Your task to perform on an android device: What's the weather going to be this weekend? Image 0: 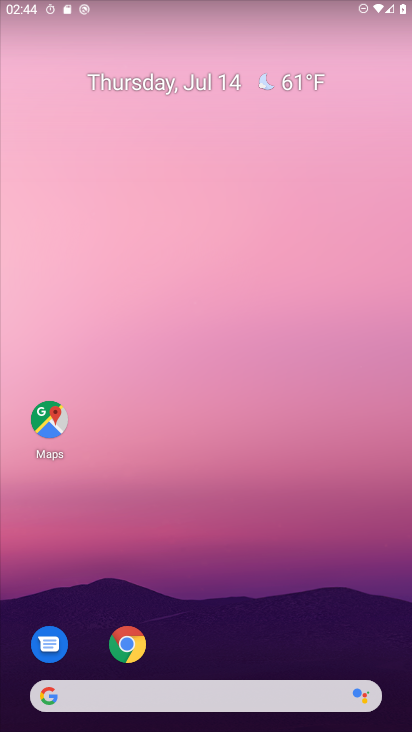
Step 0: drag from (258, 622) to (208, 23)
Your task to perform on an android device: What's the weather going to be this weekend? Image 1: 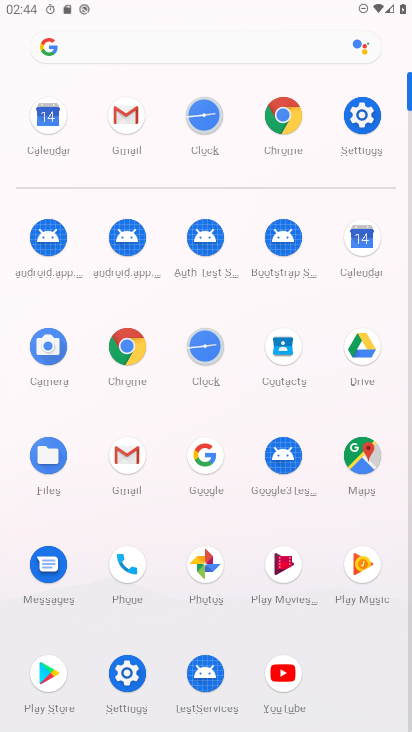
Step 1: press home button
Your task to perform on an android device: What's the weather going to be this weekend? Image 2: 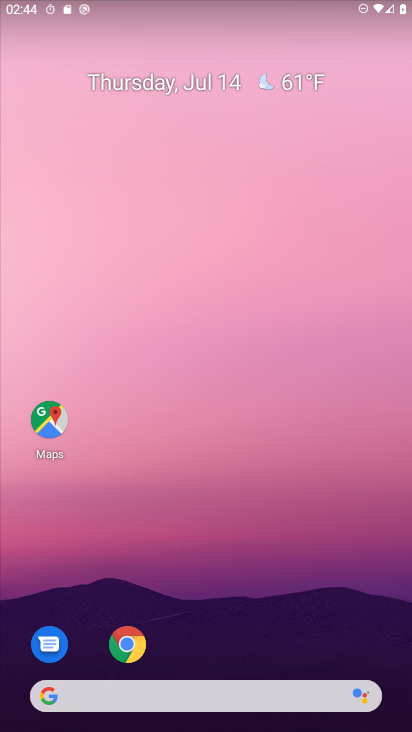
Step 2: click (308, 84)
Your task to perform on an android device: What's the weather going to be this weekend? Image 3: 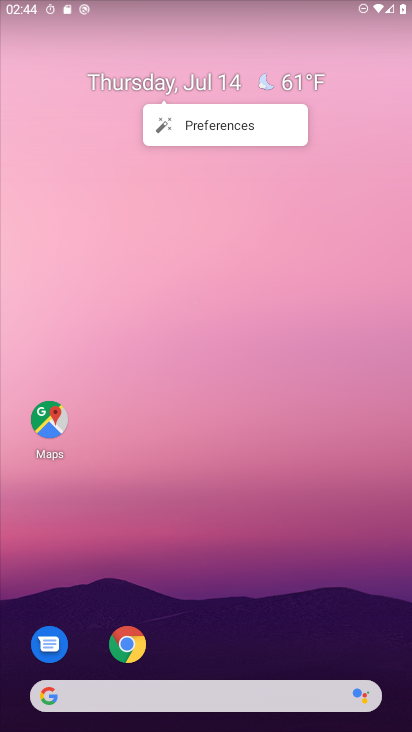
Step 3: click (304, 84)
Your task to perform on an android device: What's the weather going to be this weekend? Image 4: 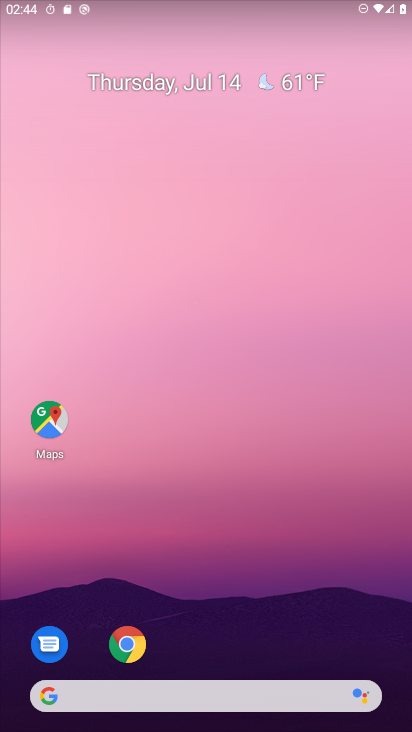
Step 4: click (298, 79)
Your task to perform on an android device: What's the weather going to be this weekend? Image 5: 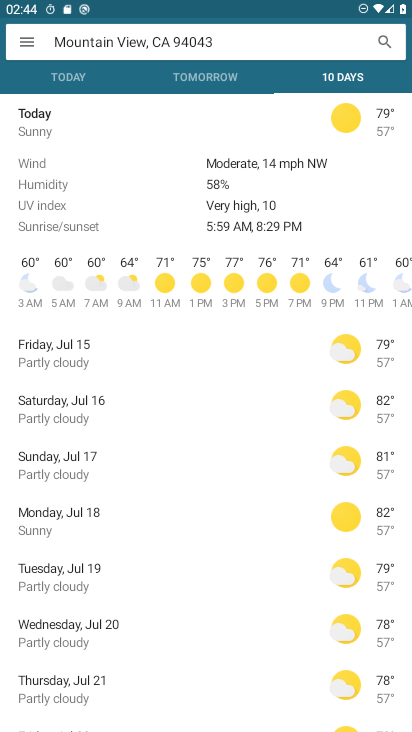
Step 5: click (353, 80)
Your task to perform on an android device: What's the weather going to be this weekend? Image 6: 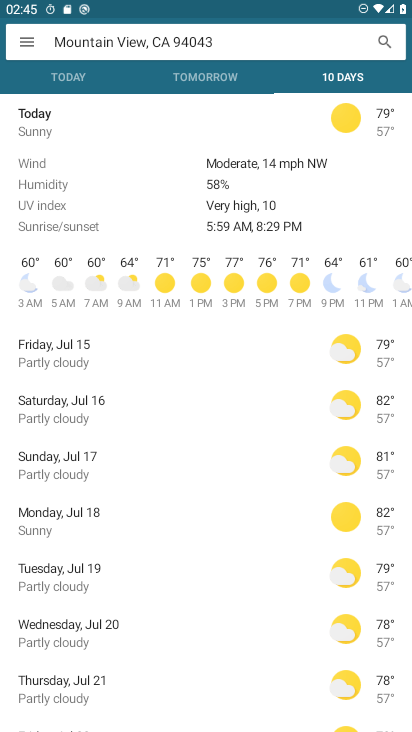
Step 6: task complete